Your task to perform on an android device: turn vacation reply on in the gmail app Image 0: 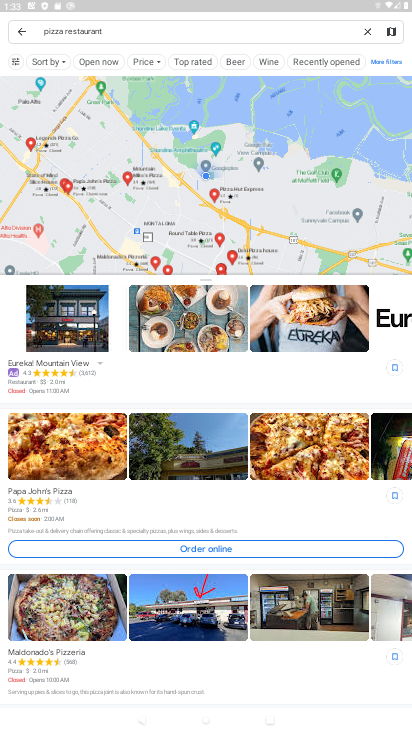
Step 0: press home button
Your task to perform on an android device: turn vacation reply on in the gmail app Image 1: 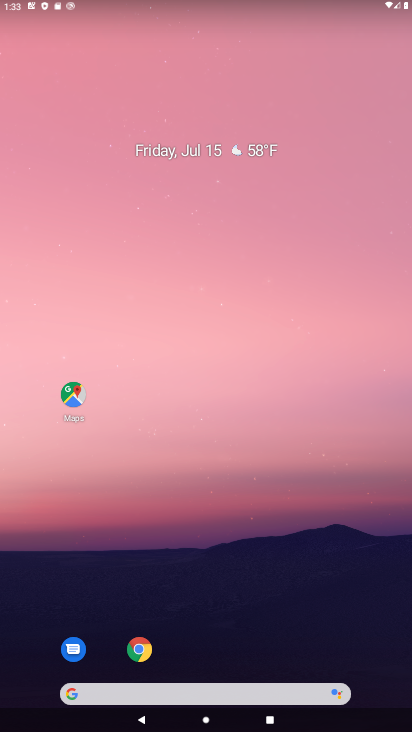
Step 1: drag from (306, 698) to (324, 139)
Your task to perform on an android device: turn vacation reply on in the gmail app Image 2: 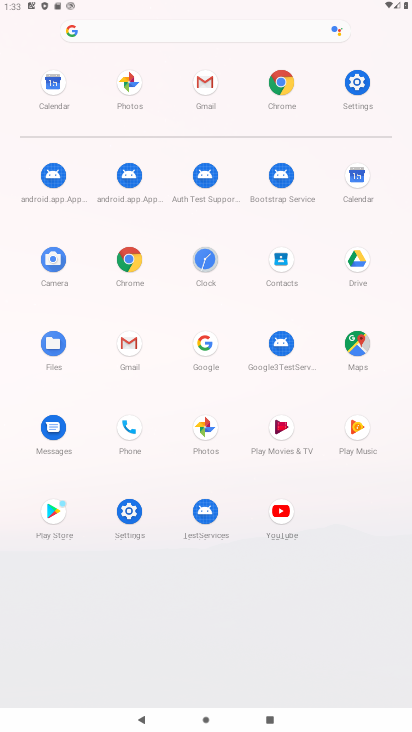
Step 2: click (118, 348)
Your task to perform on an android device: turn vacation reply on in the gmail app Image 3: 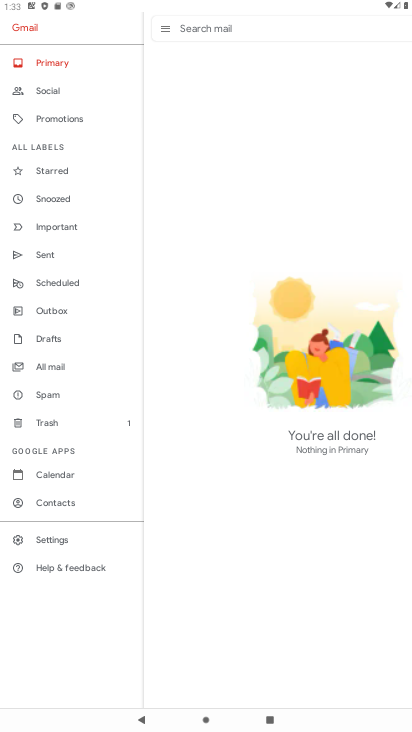
Step 3: click (70, 538)
Your task to perform on an android device: turn vacation reply on in the gmail app Image 4: 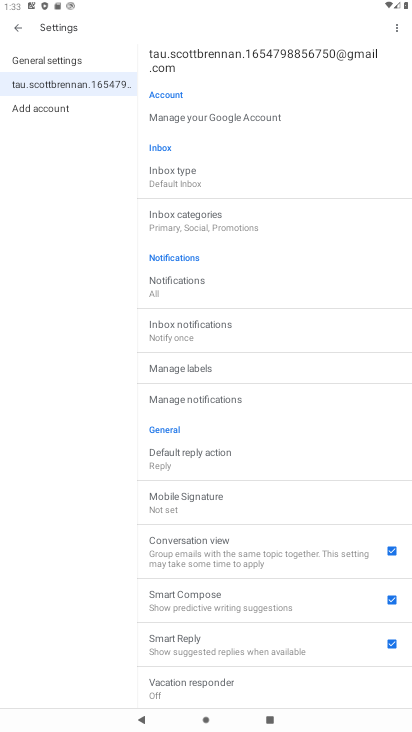
Step 4: click (221, 685)
Your task to perform on an android device: turn vacation reply on in the gmail app Image 5: 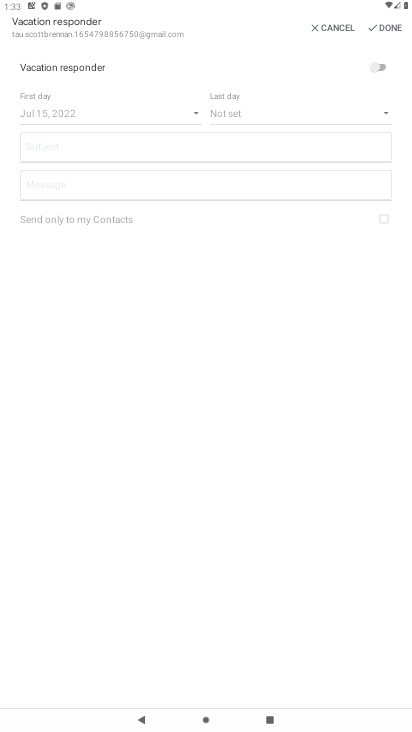
Step 5: click (391, 27)
Your task to perform on an android device: turn vacation reply on in the gmail app Image 6: 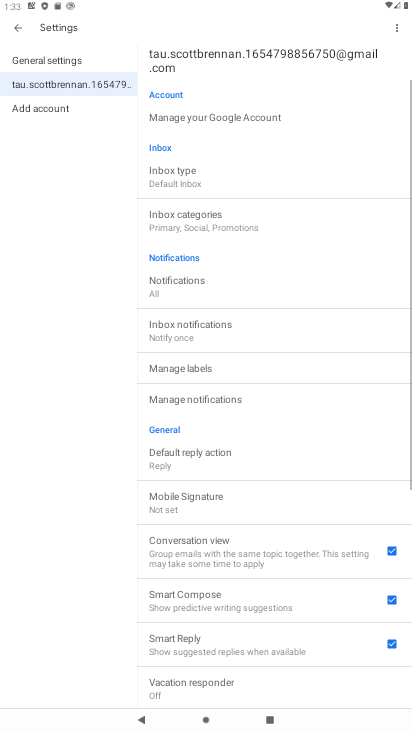
Step 6: task complete